Your task to perform on an android device: change keyboard looks Image 0: 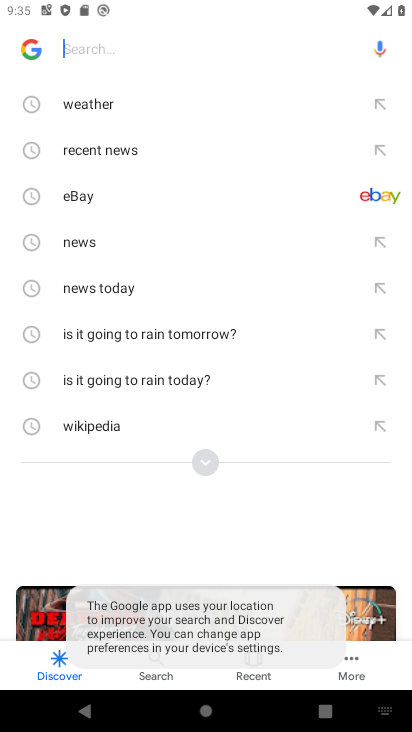
Step 0: press home button
Your task to perform on an android device: change keyboard looks Image 1: 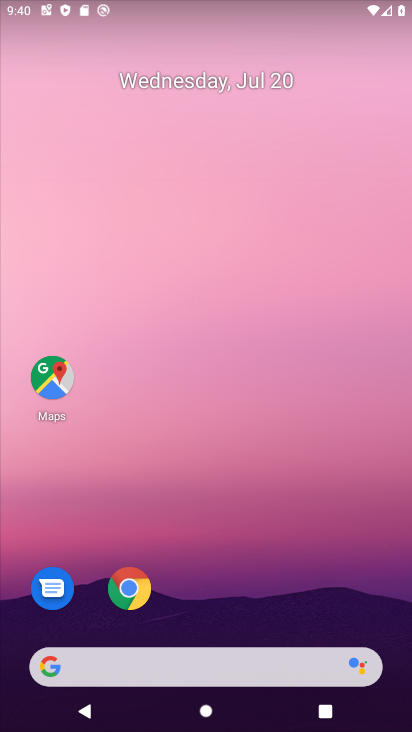
Step 1: press home button
Your task to perform on an android device: change keyboard looks Image 2: 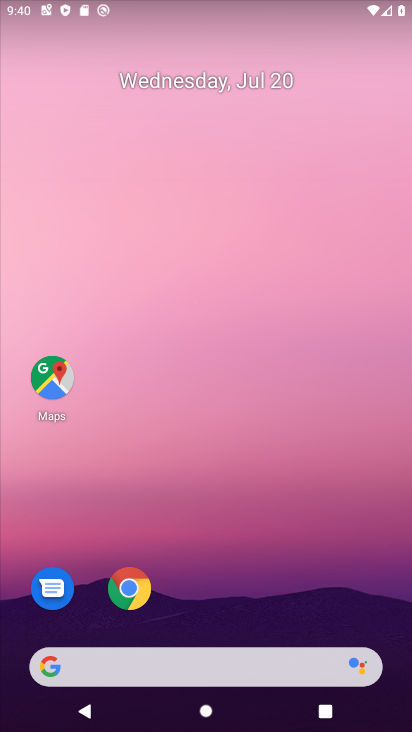
Step 2: drag from (283, 606) to (326, 221)
Your task to perform on an android device: change keyboard looks Image 3: 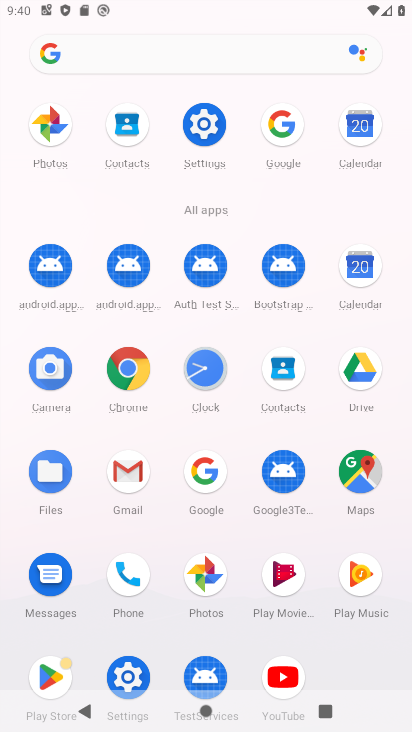
Step 3: click (206, 131)
Your task to perform on an android device: change keyboard looks Image 4: 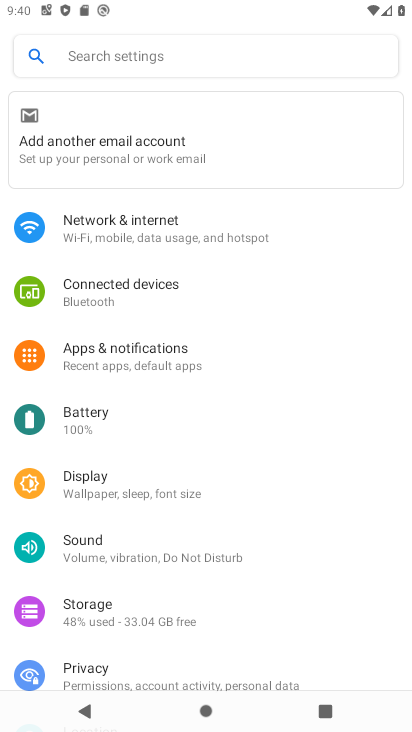
Step 4: drag from (155, 651) to (175, 313)
Your task to perform on an android device: change keyboard looks Image 5: 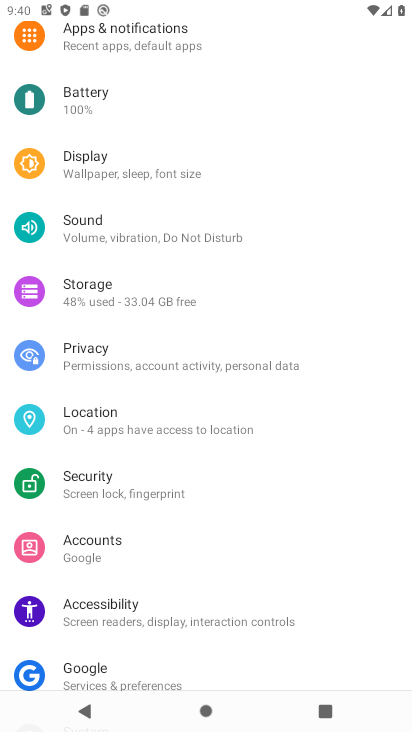
Step 5: drag from (159, 582) to (170, 310)
Your task to perform on an android device: change keyboard looks Image 6: 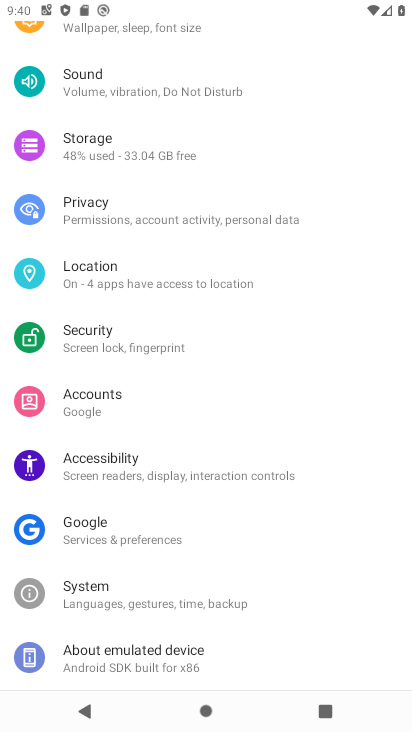
Step 6: click (120, 598)
Your task to perform on an android device: change keyboard looks Image 7: 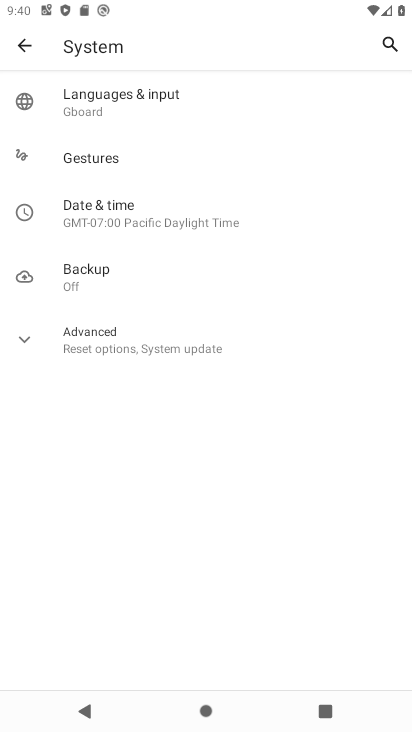
Step 7: click (100, 101)
Your task to perform on an android device: change keyboard looks Image 8: 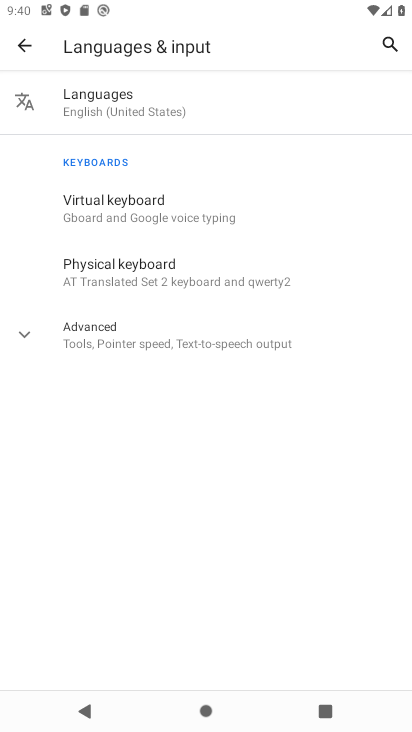
Step 8: click (120, 205)
Your task to perform on an android device: change keyboard looks Image 9: 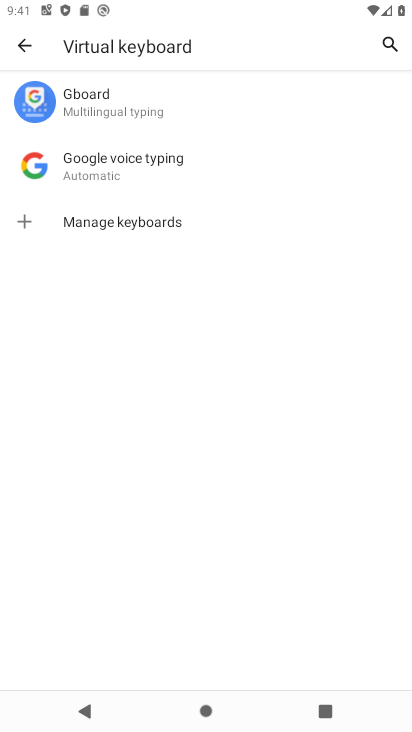
Step 9: click (149, 116)
Your task to perform on an android device: change keyboard looks Image 10: 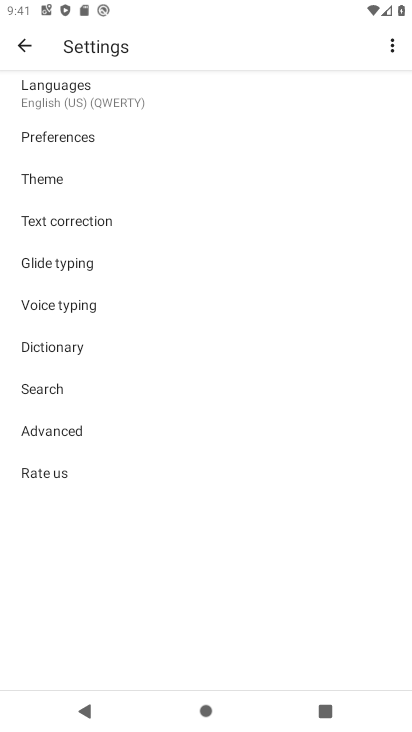
Step 10: click (40, 180)
Your task to perform on an android device: change keyboard looks Image 11: 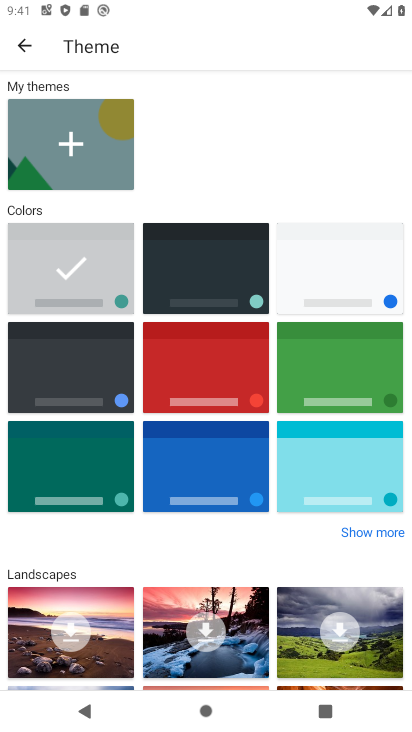
Step 11: click (227, 359)
Your task to perform on an android device: change keyboard looks Image 12: 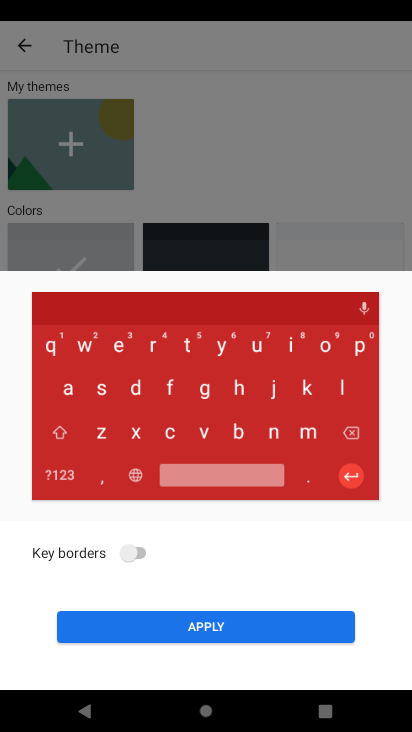
Step 12: click (234, 620)
Your task to perform on an android device: change keyboard looks Image 13: 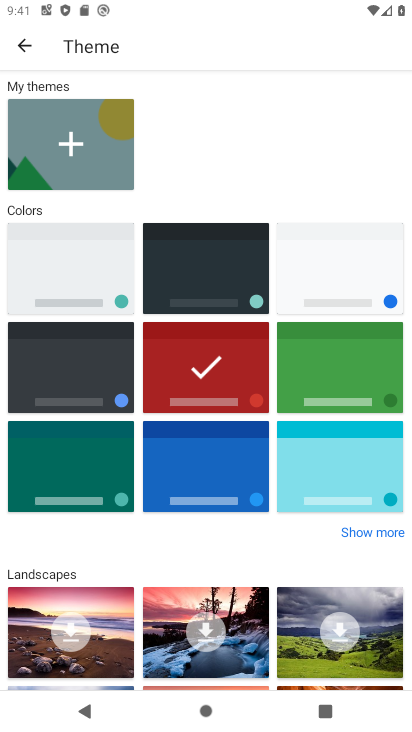
Step 13: task complete